Your task to perform on an android device: open chrome privacy settings Image 0: 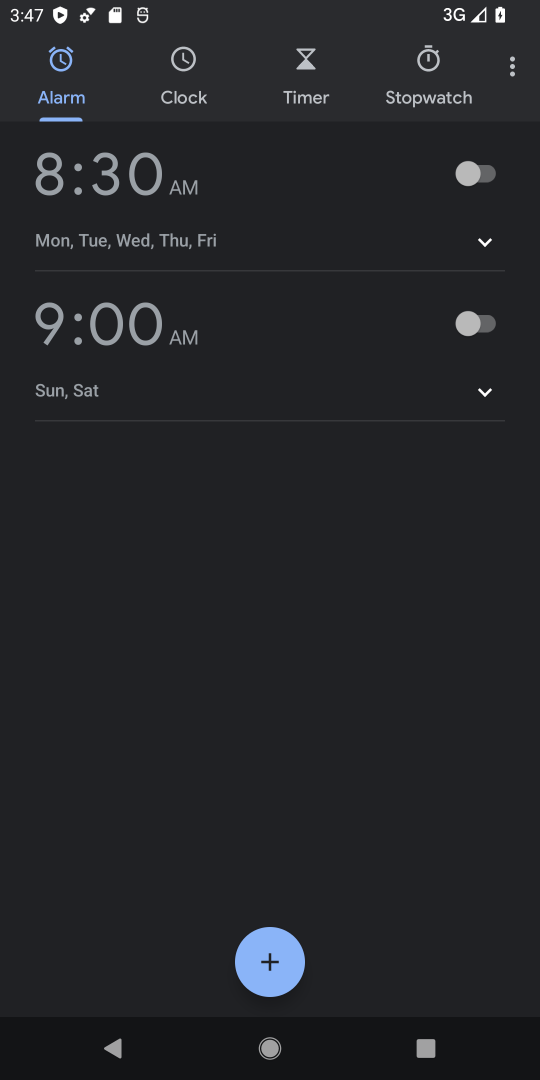
Step 0: press home button
Your task to perform on an android device: open chrome privacy settings Image 1: 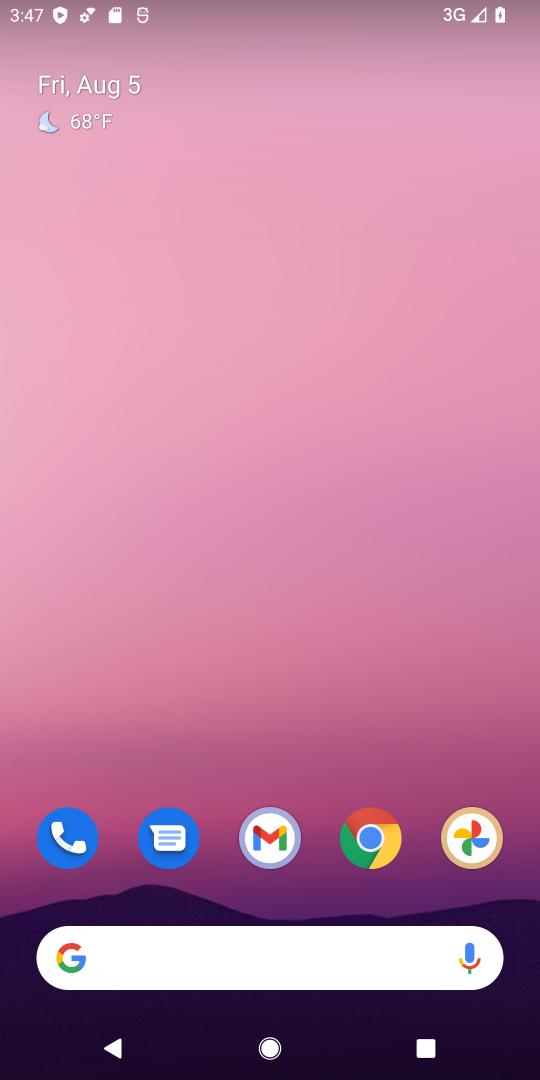
Step 1: drag from (336, 851) to (404, 281)
Your task to perform on an android device: open chrome privacy settings Image 2: 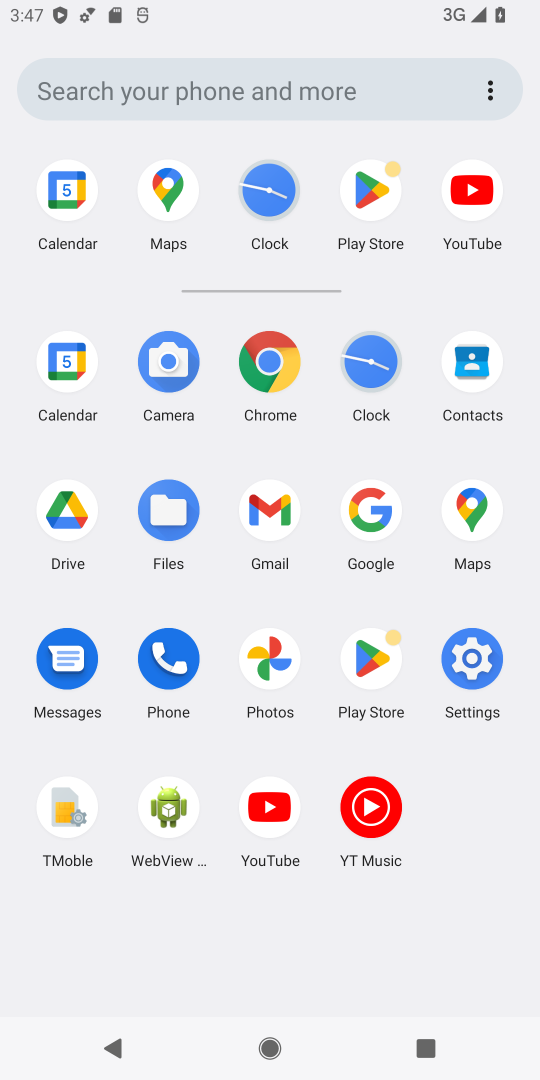
Step 2: click (276, 353)
Your task to perform on an android device: open chrome privacy settings Image 3: 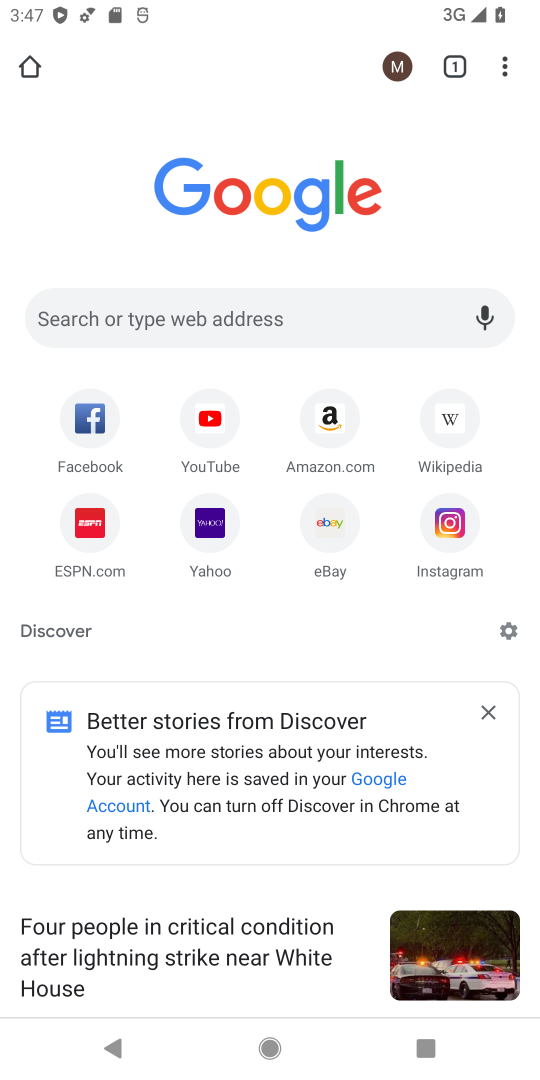
Step 3: click (514, 59)
Your task to perform on an android device: open chrome privacy settings Image 4: 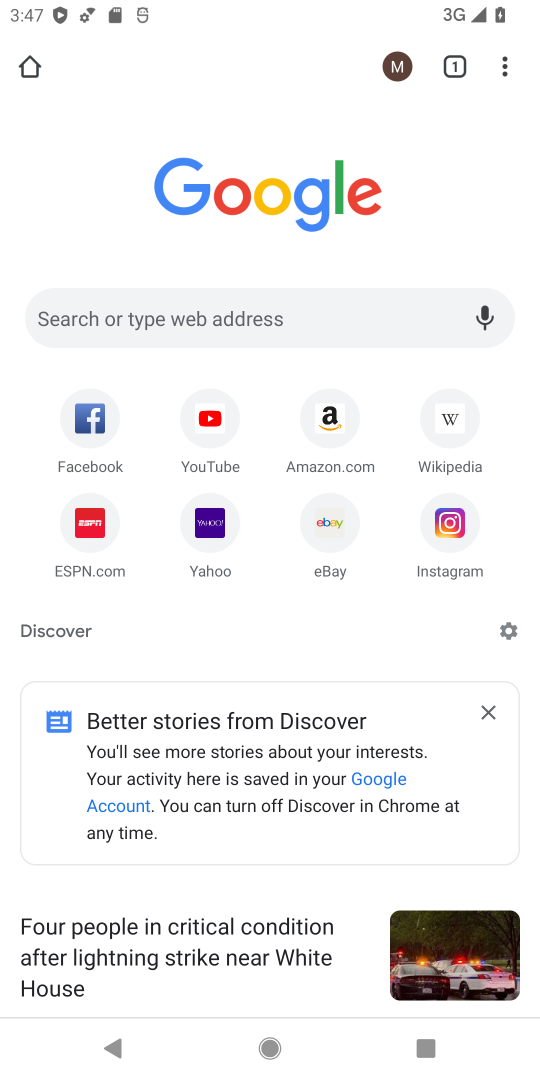
Step 4: click (512, 70)
Your task to perform on an android device: open chrome privacy settings Image 5: 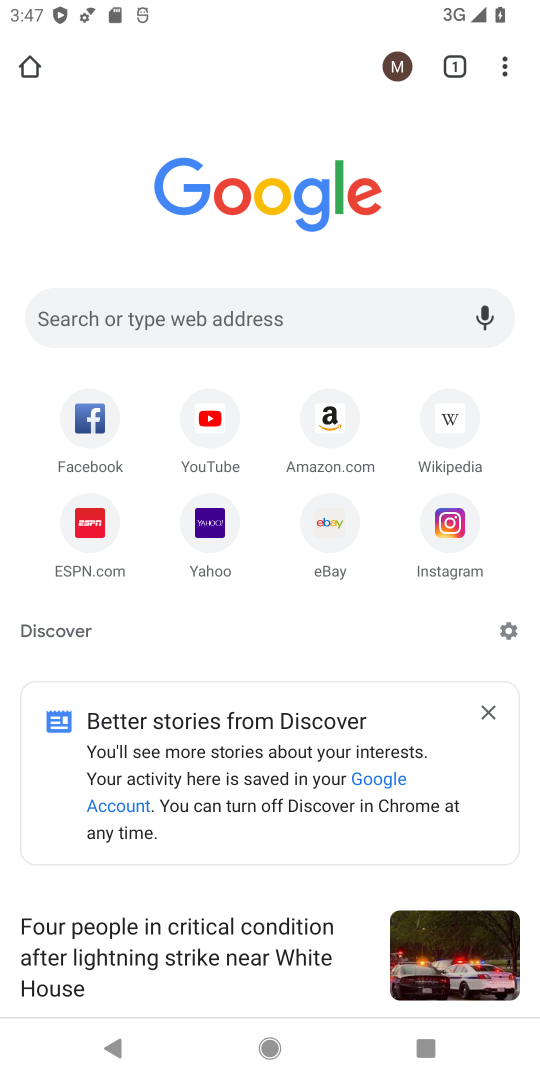
Step 5: click (512, 70)
Your task to perform on an android device: open chrome privacy settings Image 6: 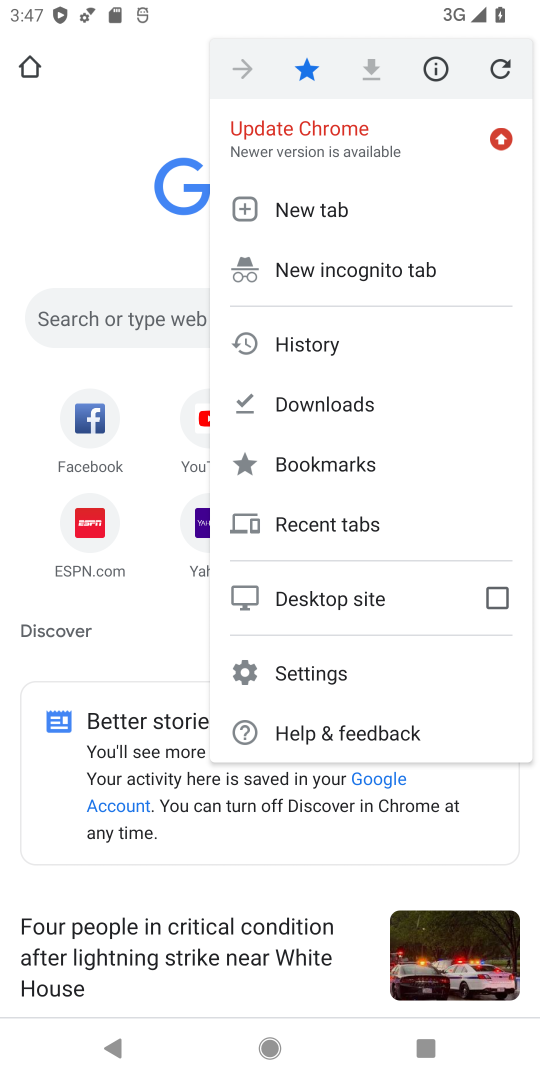
Step 6: click (314, 668)
Your task to perform on an android device: open chrome privacy settings Image 7: 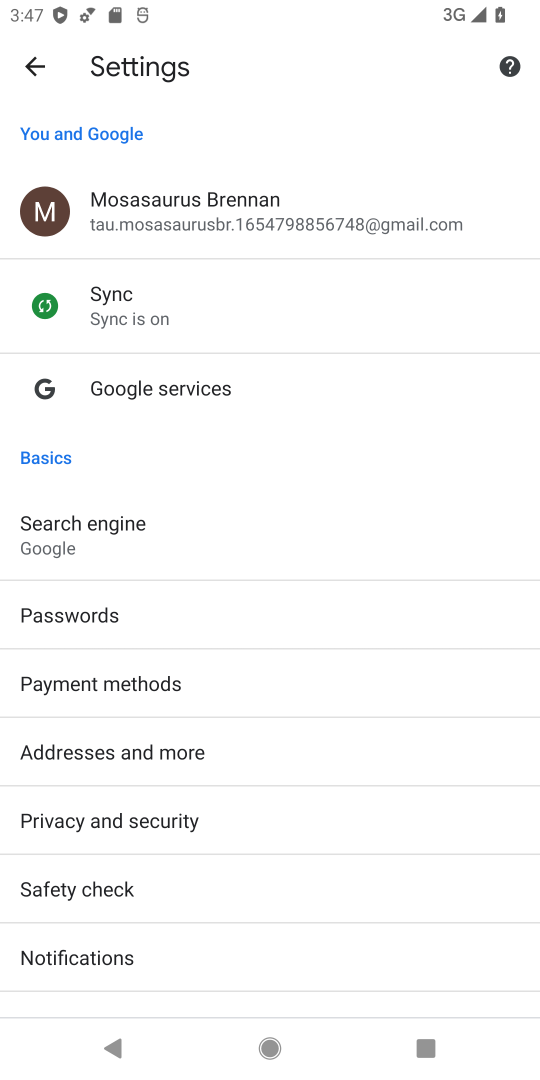
Step 7: drag from (179, 889) to (308, 455)
Your task to perform on an android device: open chrome privacy settings Image 8: 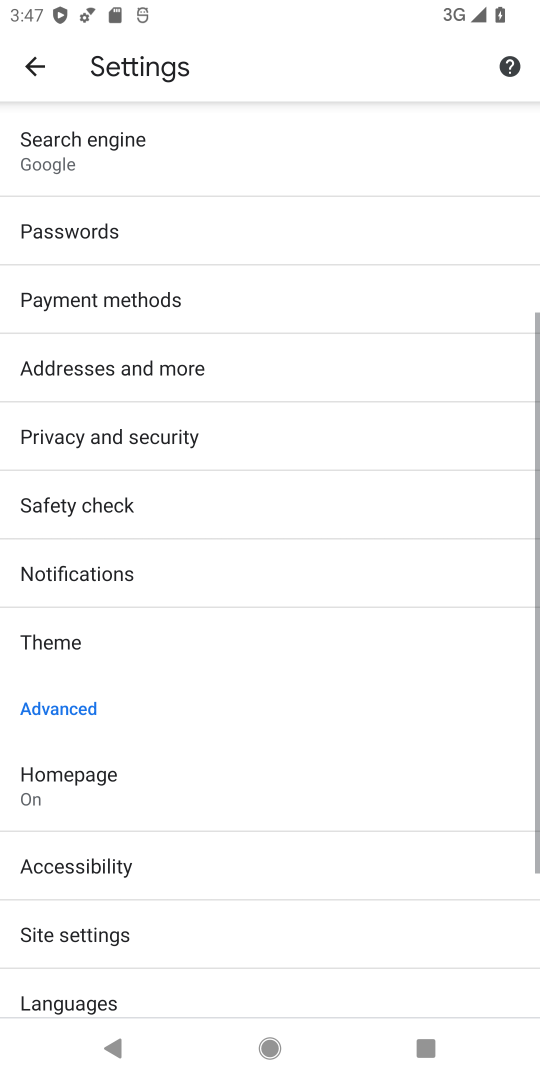
Step 8: click (211, 424)
Your task to perform on an android device: open chrome privacy settings Image 9: 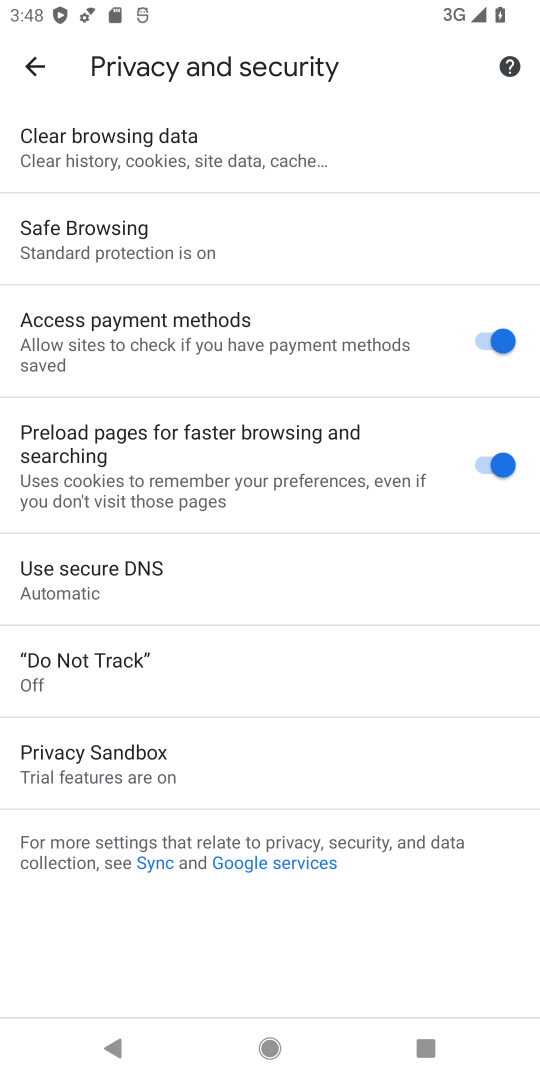
Step 9: task complete